Your task to perform on an android device: Search for custom made wallets on etsy.com Image 0: 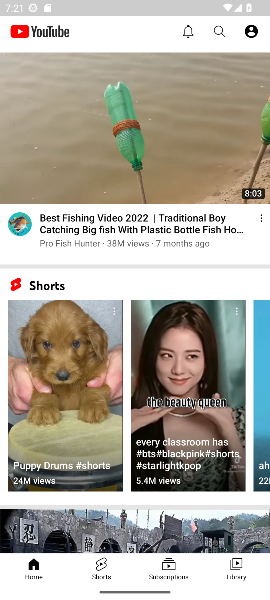
Step 0: press home button
Your task to perform on an android device: Search for custom made wallets on etsy.com Image 1: 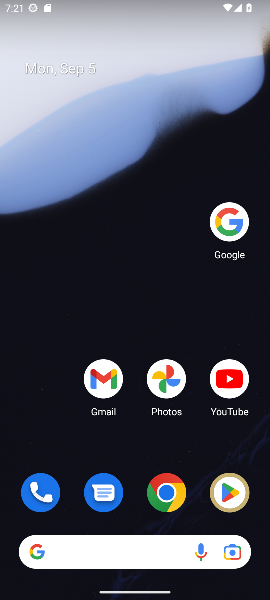
Step 1: click (229, 204)
Your task to perform on an android device: Search for custom made wallets on etsy.com Image 2: 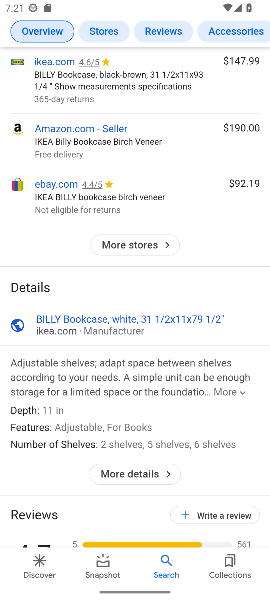
Step 2: drag from (155, 86) to (165, 405)
Your task to perform on an android device: Search for custom made wallets on etsy.com Image 3: 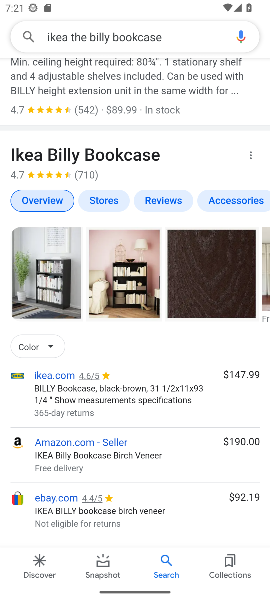
Step 3: click (177, 26)
Your task to perform on an android device: Search for custom made wallets on etsy.com Image 4: 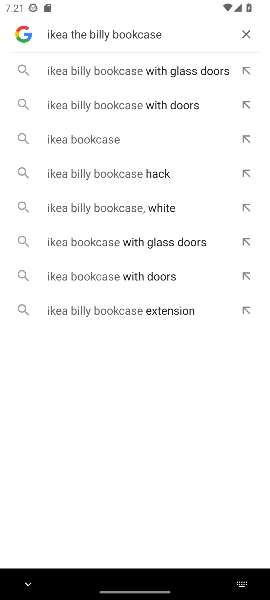
Step 4: click (246, 26)
Your task to perform on an android device: Search for custom made wallets on etsy.com Image 5: 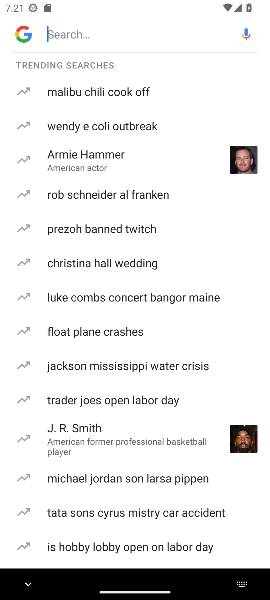
Step 5: click (110, 32)
Your task to perform on an android device: Search for custom made wallets on etsy.com Image 6: 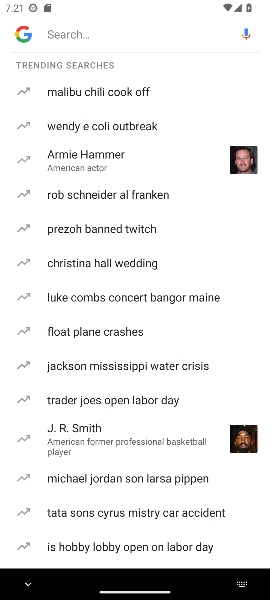
Step 6: type "custom made wallets on etsy.com "
Your task to perform on an android device: Search for custom made wallets on etsy.com Image 7: 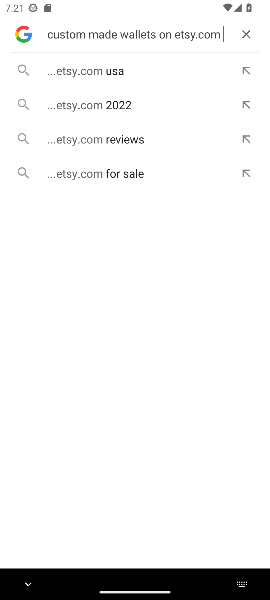
Step 7: click (111, 69)
Your task to perform on an android device: Search for custom made wallets on etsy.com Image 8: 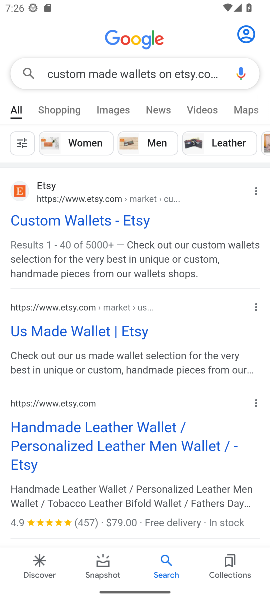
Step 8: click (25, 215)
Your task to perform on an android device: Search for custom made wallets on etsy.com Image 9: 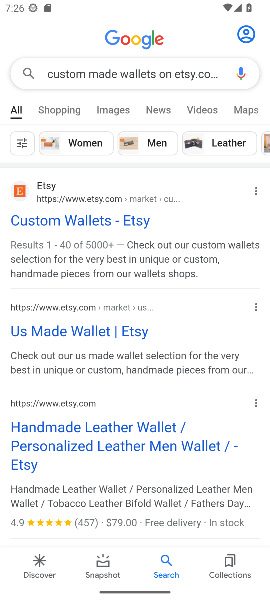
Step 9: task complete